Your task to perform on an android device: How do I get to the nearest Sprint Store? Image 0: 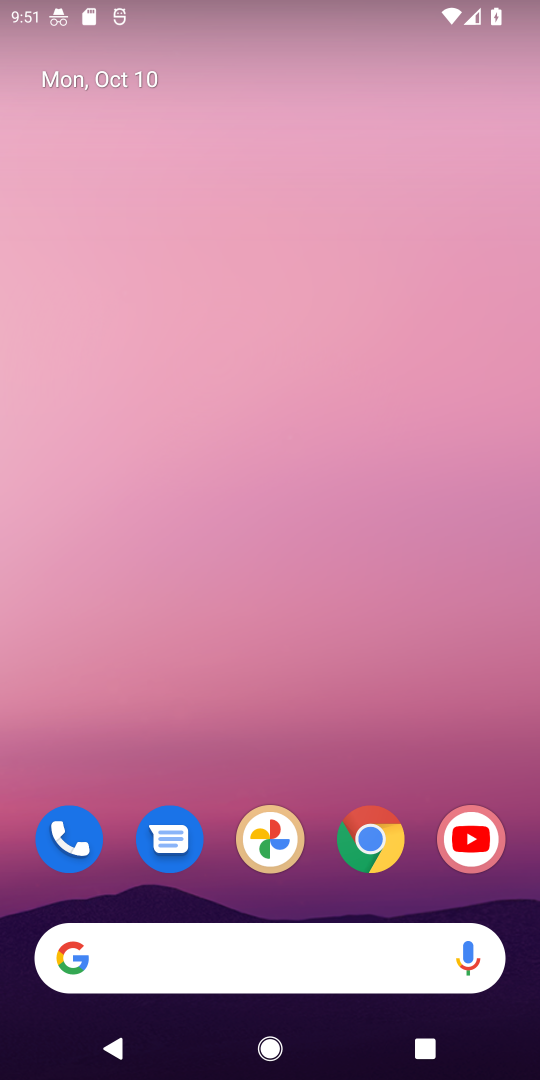
Step 0: drag from (341, 885) to (282, 5)
Your task to perform on an android device: How do I get to the nearest Sprint Store? Image 1: 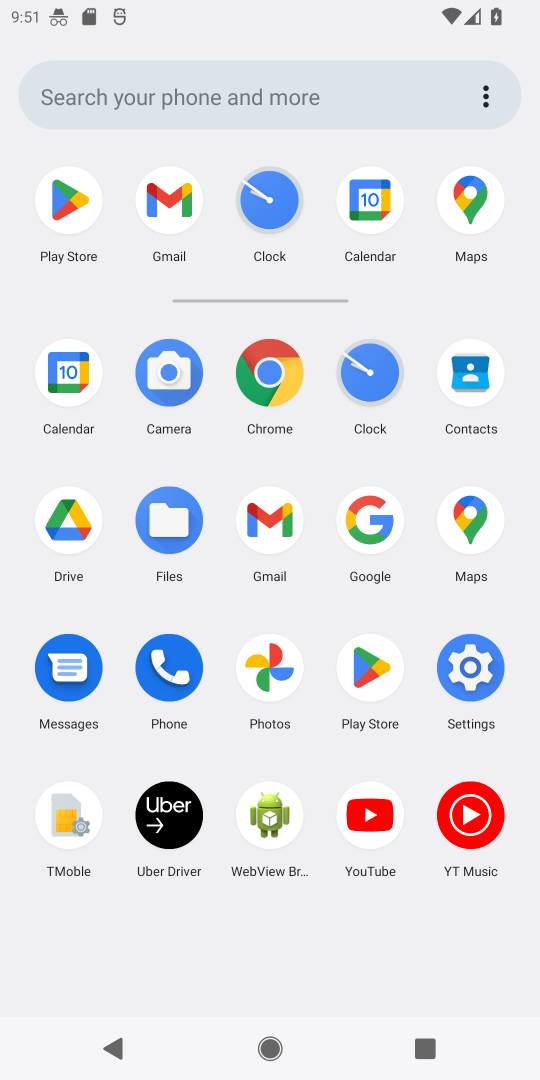
Step 1: click (274, 373)
Your task to perform on an android device: How do I get to the nearest Sprint Store? Image 2: 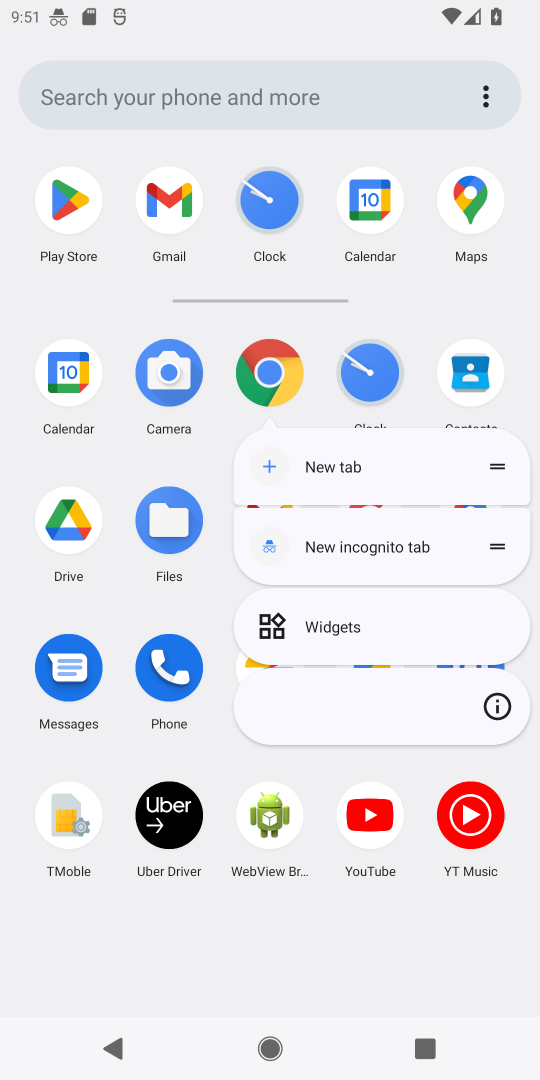
Step 2: click (270, 373)
Your task to perform on an android device: How do I get to the nearest Sprint Store? Image 3: 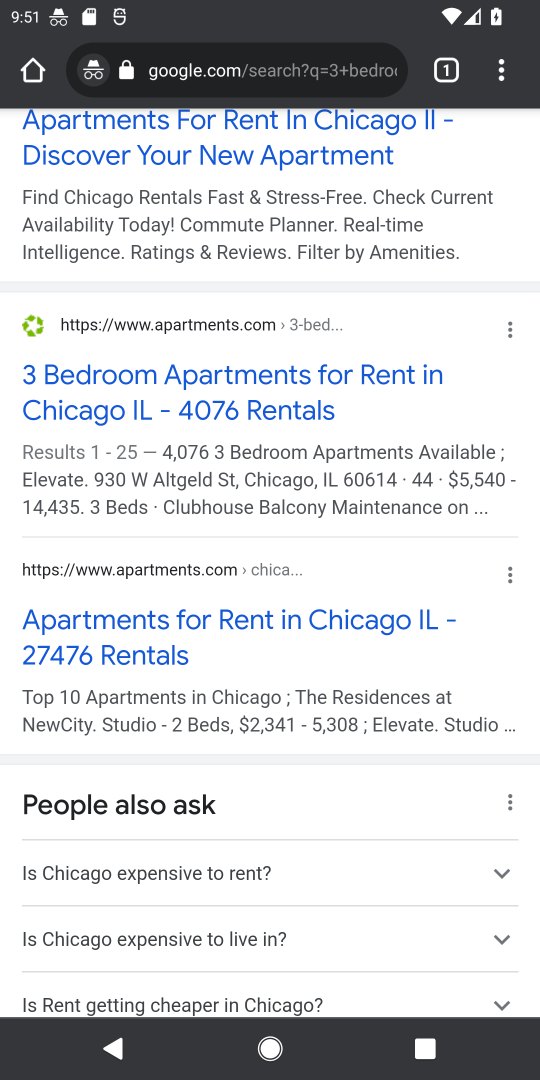
Step 3: click (293, 75)
Your task to perform on an android device: How do I get to the nearest Sprint Store? Image 4: 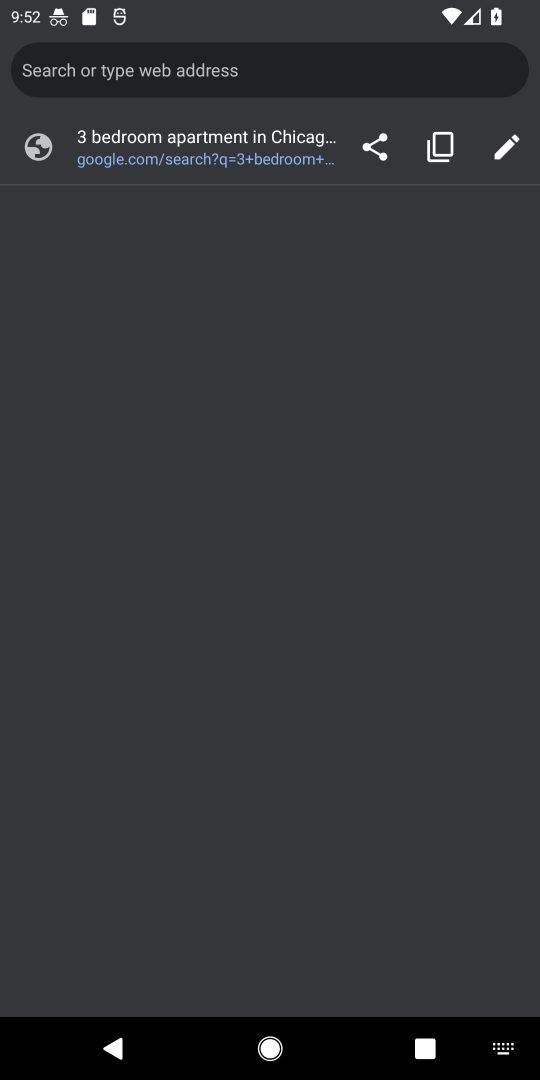
Step 4: type "how do I get to the nearest Sprint Store?"
Your task to perform on an android device: How do I get to the nearest Sprint Store? Image 5: 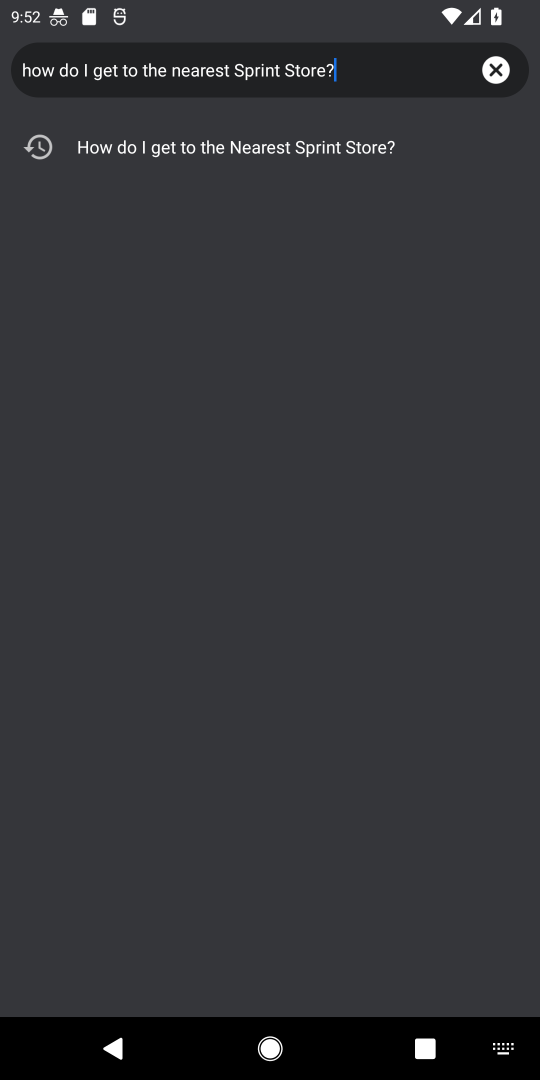
Step 5: press enter
Your task to perform on an android device: How do I get to the nearest Sprint Store? Image 6: 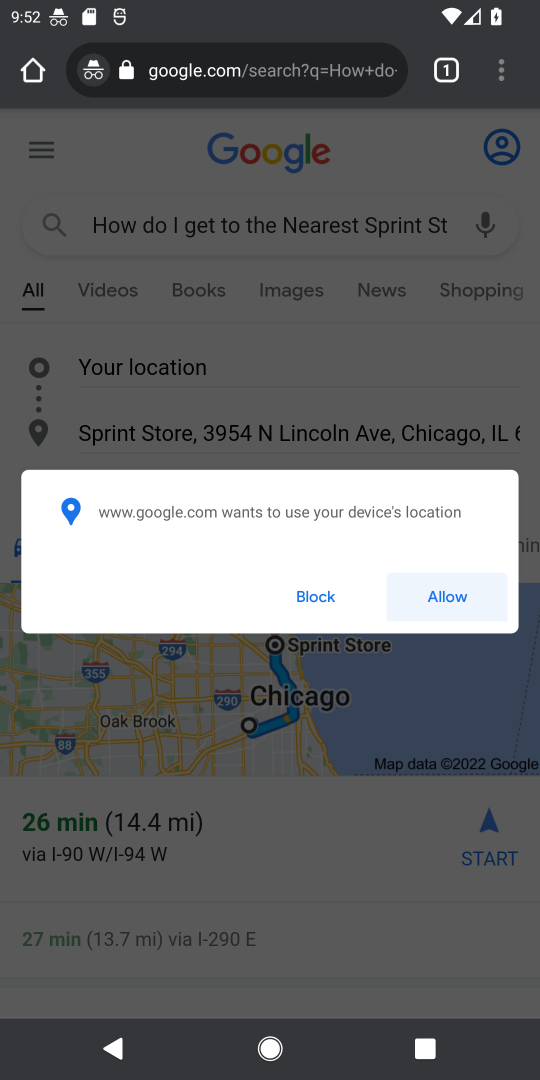
Step 6: click (295, 611)
Your task to perform on an android device: How do I get to the nearest Sprint Store? Image 7: 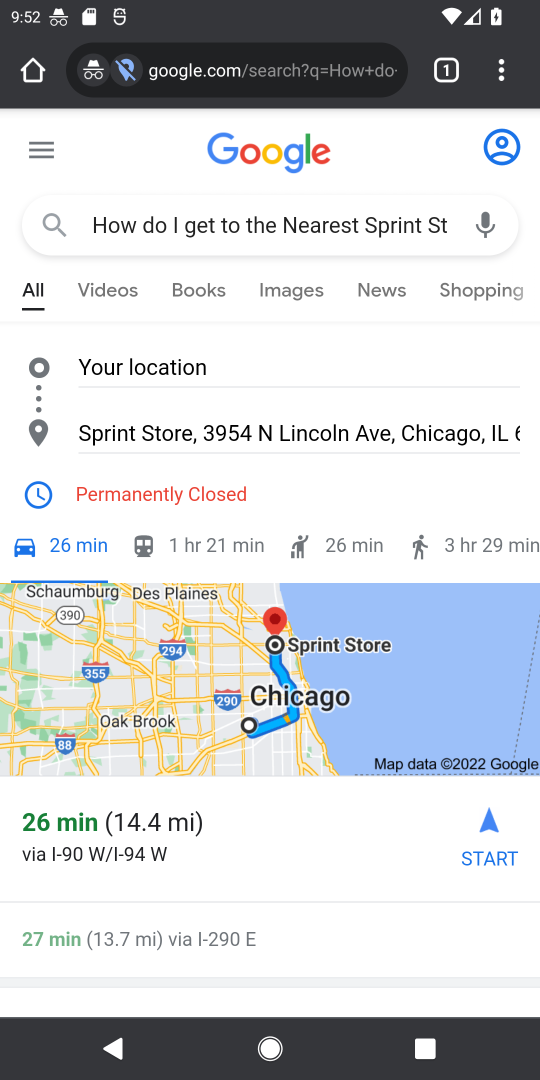
Step 7: task complete